Your task to perform on an android device: find which apps use the phone's location Image 0: 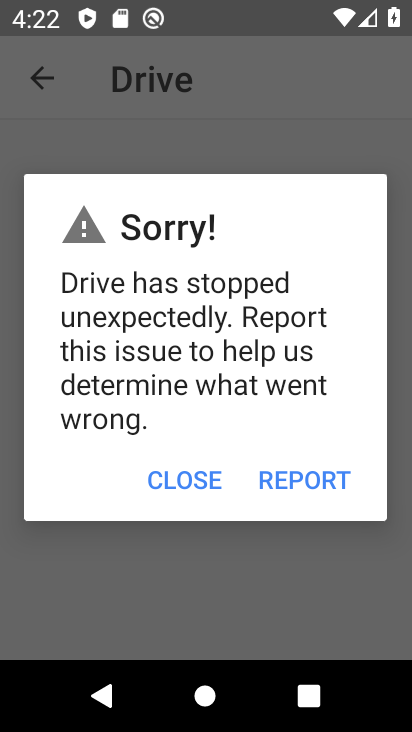
Step 0: press home button
Your task to perform on an android device: find which apps use the phone's location Image 1: 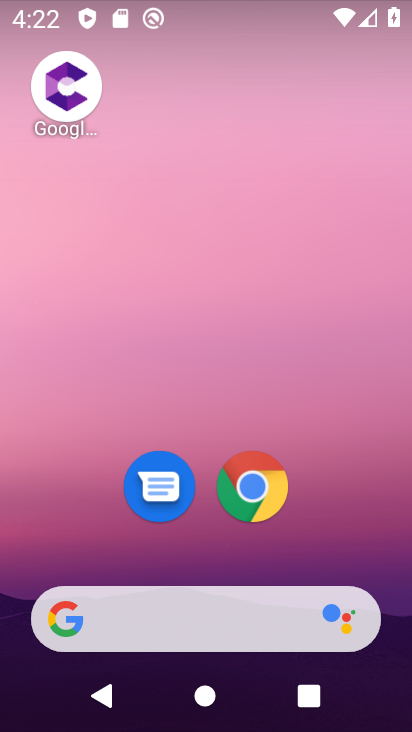
Step 1: drag from (360, 563) to (274, 185)
Your task to perform on an android device: find which apps use the phone's location Image 2: 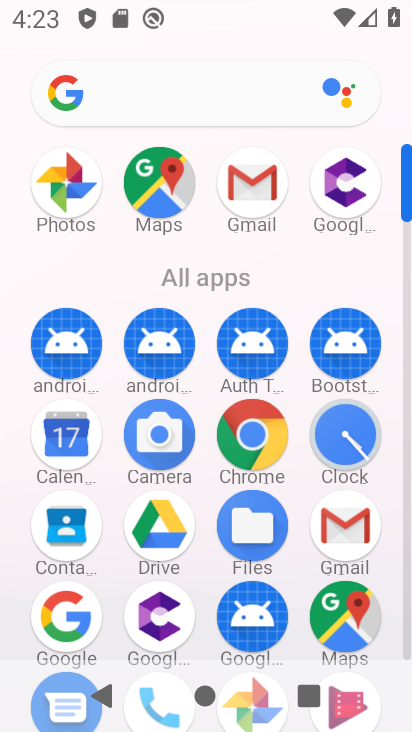
Step 2: click (407, 648)
Your task to perform on an android device: find which apps use the phone's location Image 3: 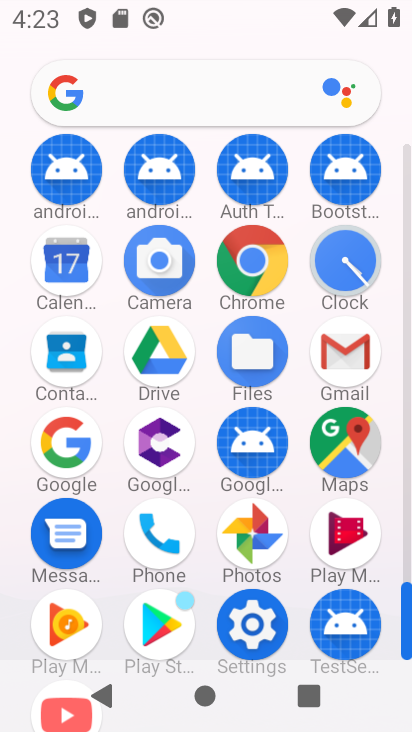
Step 3: click (251, 642)
Your task to perform on an android device: find which apps use the phone's location Image 4: 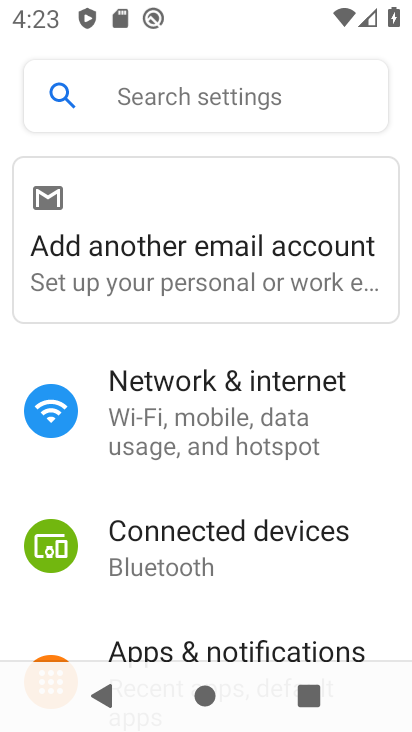
Step 4: drag from (296, 576) to (301, 61)
Your task to perform on an android device: find which apps use the phone's location Image 5: 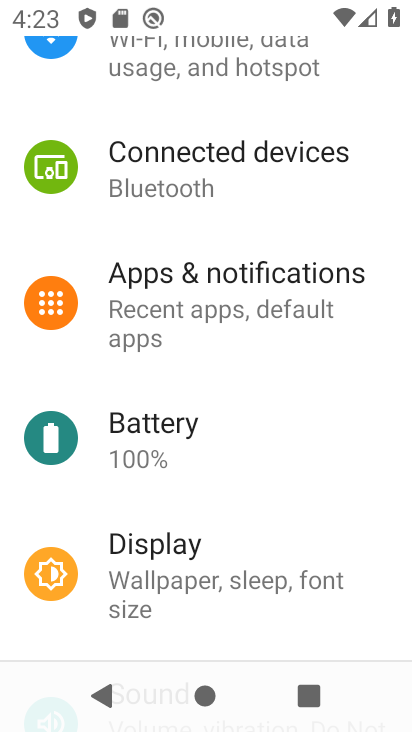
Step 5: drag from (260, 581) to (234, 94)
Your task to perform on an android device: find which apps use the phone's location Image 6: 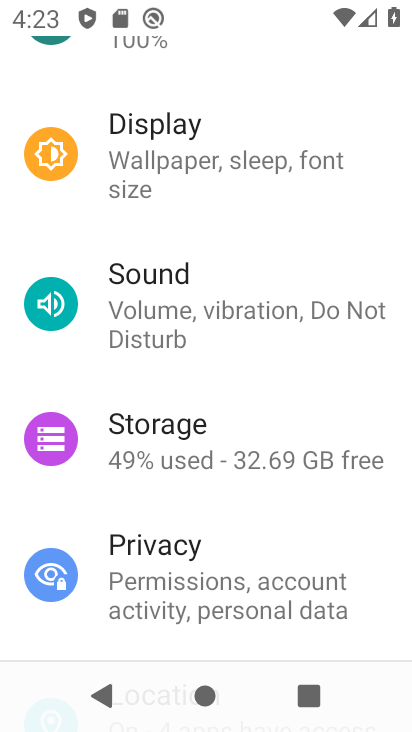
Step 6: drag from (274, 622) to (262, 177)
Your task to perform on an android device: find which apps use the phone's location Image 7: 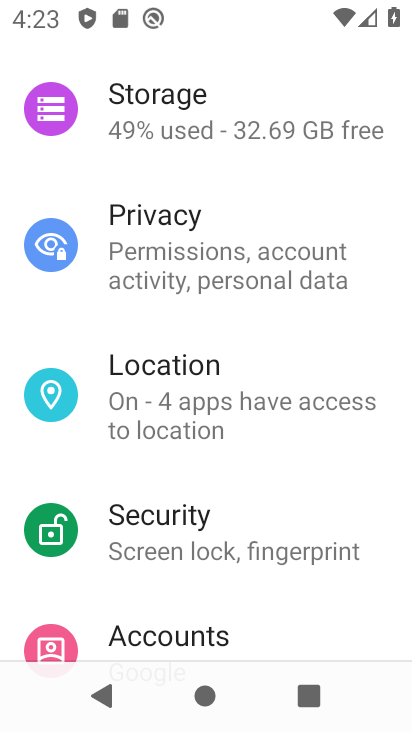
Step 7: click (283, 425)
Your task to perform on an android device: find which apps use the phone's location Image 8: 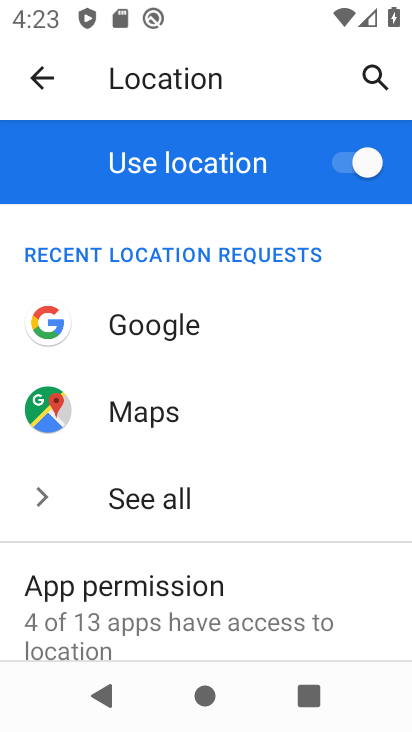
Step 8: click (263, 594)
Your task to perform on an android device: find which apps use the phone's location Image 9: 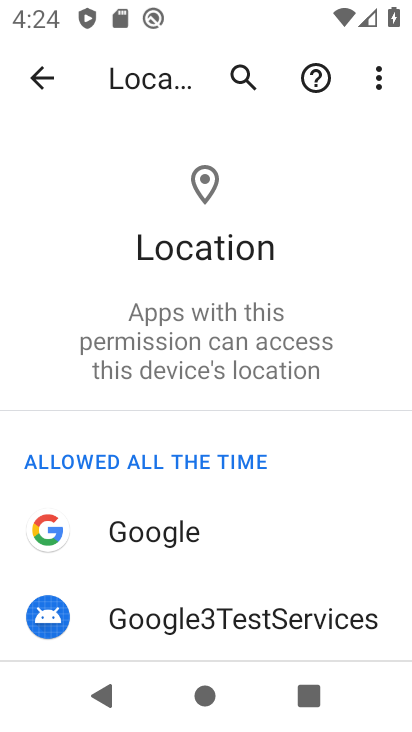
Step 9: task complete